Your task to perform on an android device: toggle data saver in the chrome app Image 0: 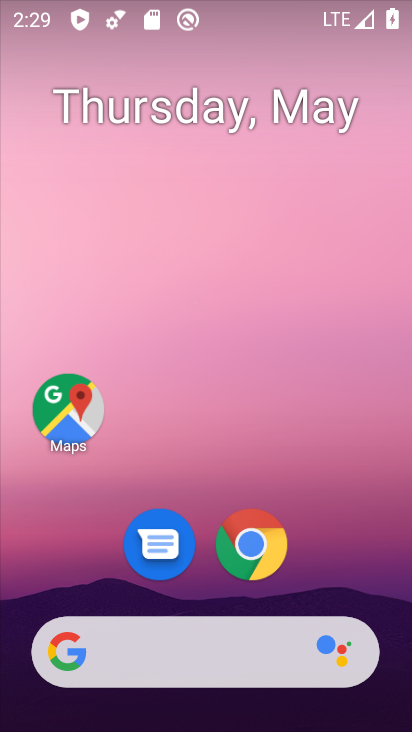
Step 0: click (270, 545)
Your task to perform on an android device: toggle data saver in the chrome app Image 1: 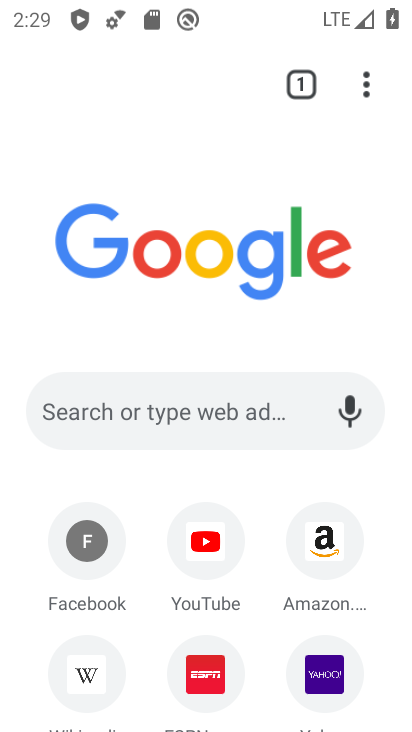
Step 1: click (371, 82)
Your task to perform on an android device: toggle data saver in the chrome app Image 2: 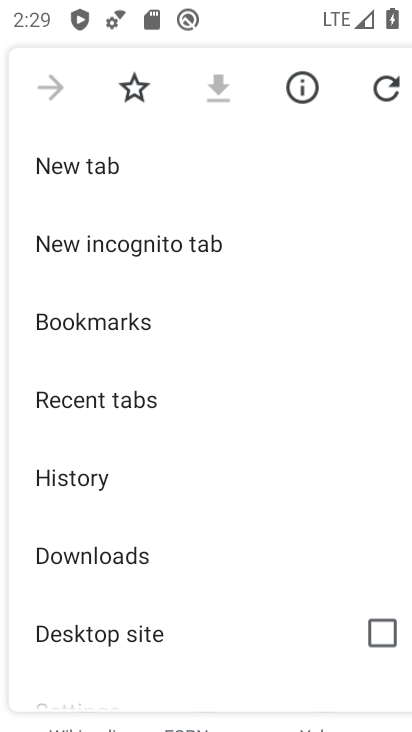
Step 2: drag from (192, 653) to (158, 284)
Your task to perform on an android device: toggle data saver in the chrome app Image 3: 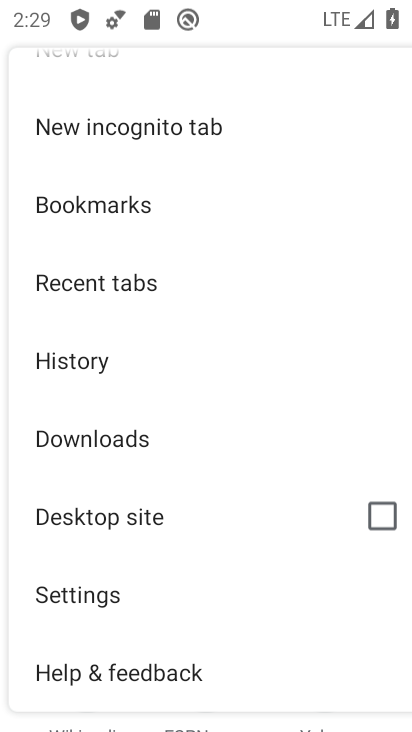
Step 3: click (106, 599)
Your task to perform on an android device: toggle data saver in the chrome app Image 4: 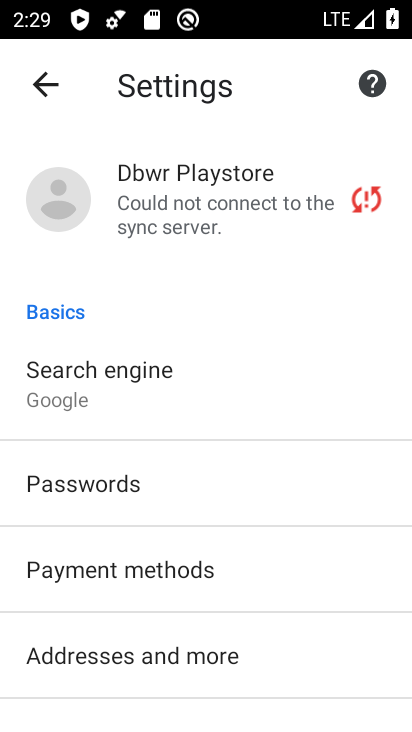
Step 4: drag from (211, 671) to (195, 210)
Your task to perform on an android device: toggle data saver in the chrome app Image 5: 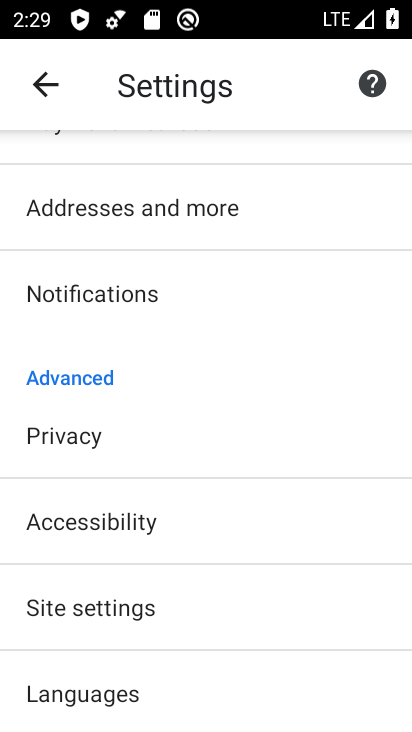
Step 5: drag from (195, 662) to (178, 139)
Your task to perform on an android device: toggle data saver in the chrome app Image 6: 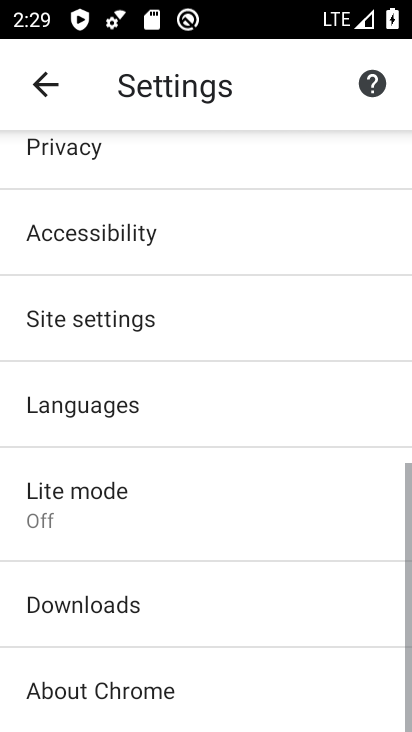
Step 6: click (117, 493)
Your task to perform on an android device: toggle data saver in the chrome app Image 7: 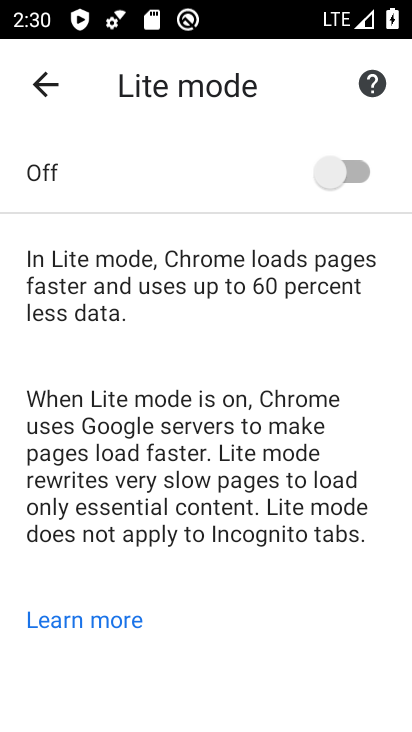
Step 7: click (362, 168)
Your task to perform on an android device: toggle data saver in the chrome app Image 8: 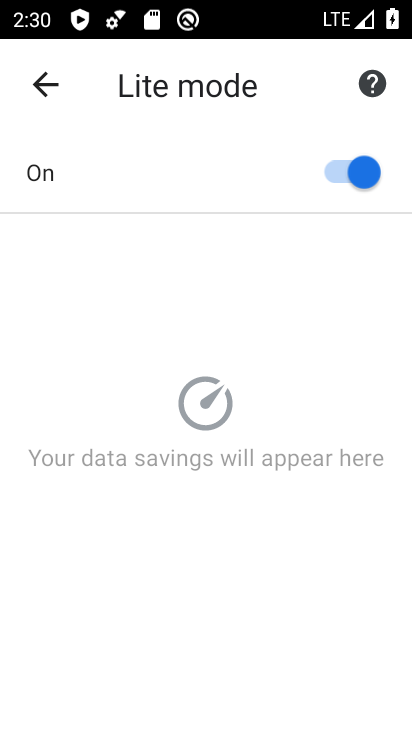
Step 8: task complete